Your task to perform on an android device: Search for 3d printer on AliExpress Image 0: 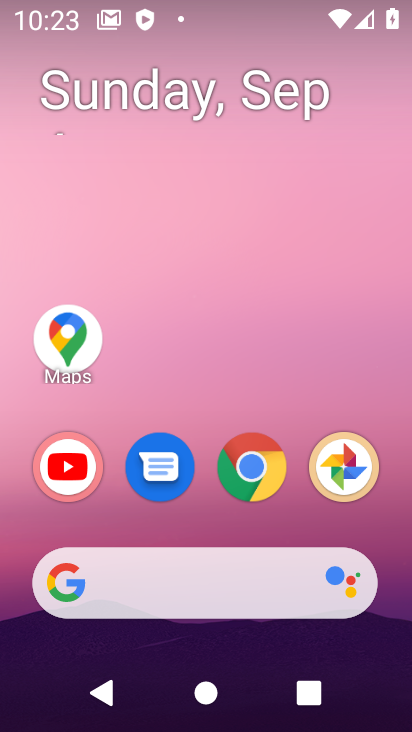
Step 0: click (260, 482)
Your task to perform on an android device: Search for 3d printer on AliExpress Image 1: 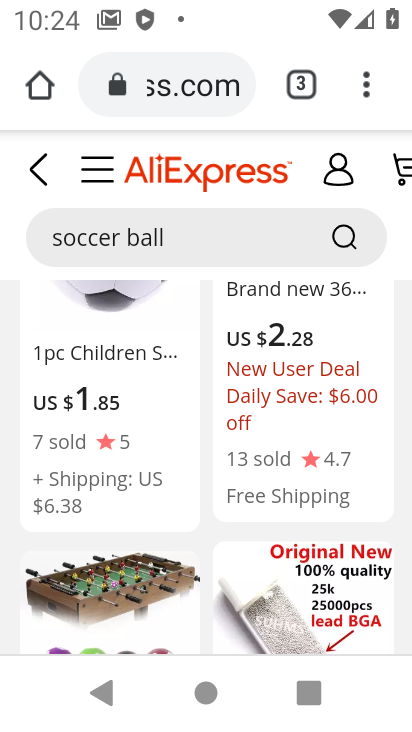
Step 1: click (174, 232)
Your task to perform on an android device: Search for 3d printer on AliExpress Image 2: 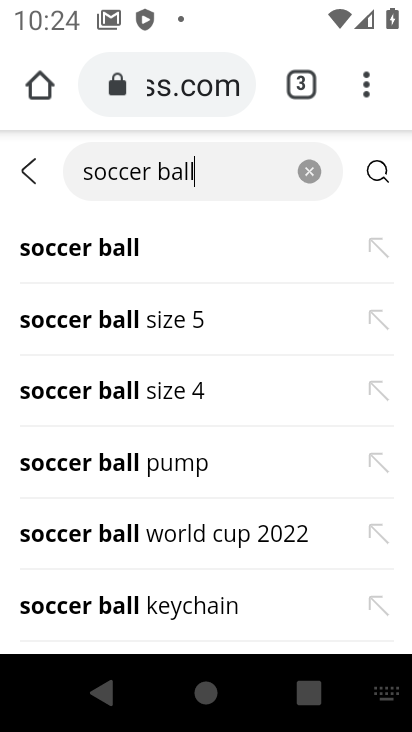
Step 2: click (312, 173)
Your task to perform on an android device: Search for 3d printer on AliExpress Image 3: 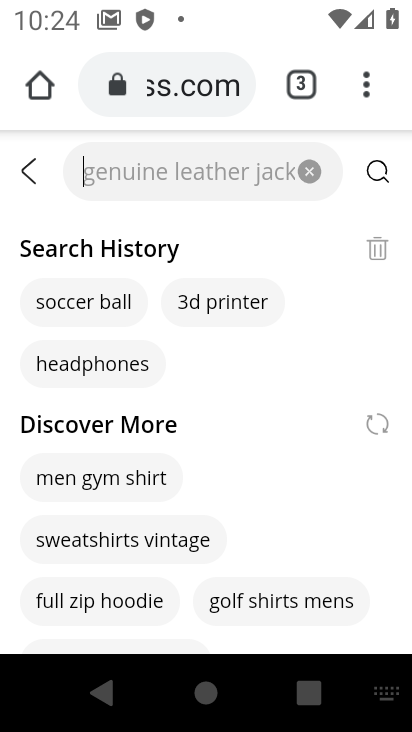
Step 3: type "3d printer"
Your task to perform on an android device: Search for 3d printer on AliExpress Image 4: 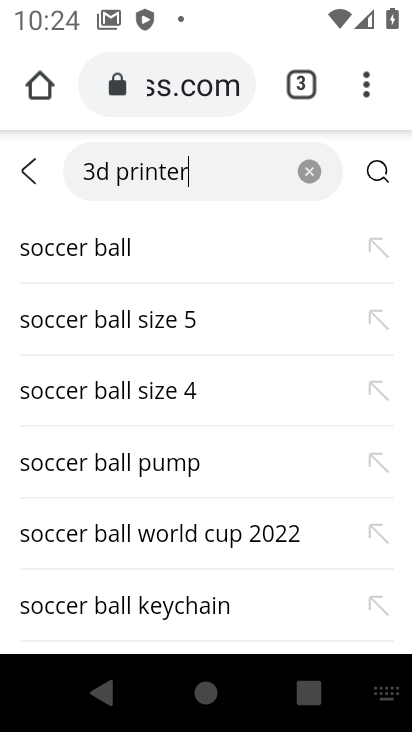
Step 4: type ""
Your task to perform on an android device: Search for 3d printer on AliExpress Image 5: 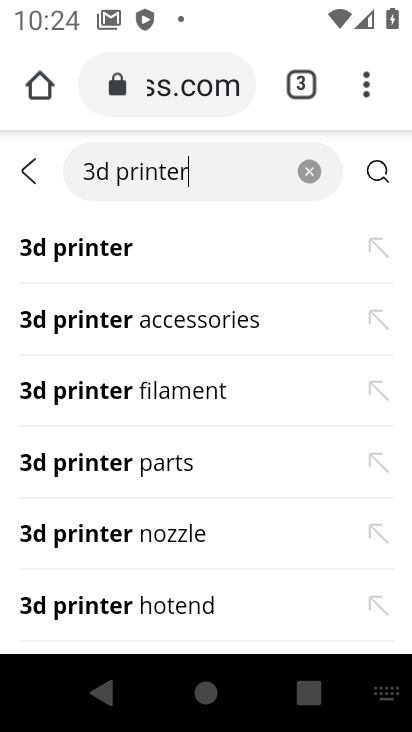
Step 5: click (65, 250)
Your task to perform on an android device: Search for 3d printer on AliExpress Image 6: 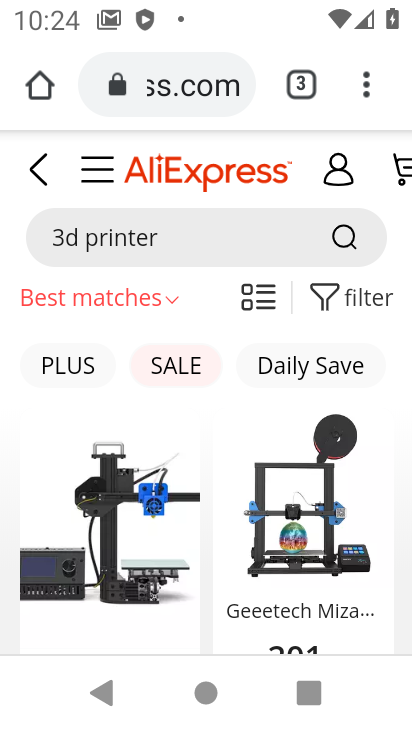
Step 6: drag from (184, 558) to (235, 285)
Your task to perform on an android device: Search for 3d printer on AliExpress Image 7: 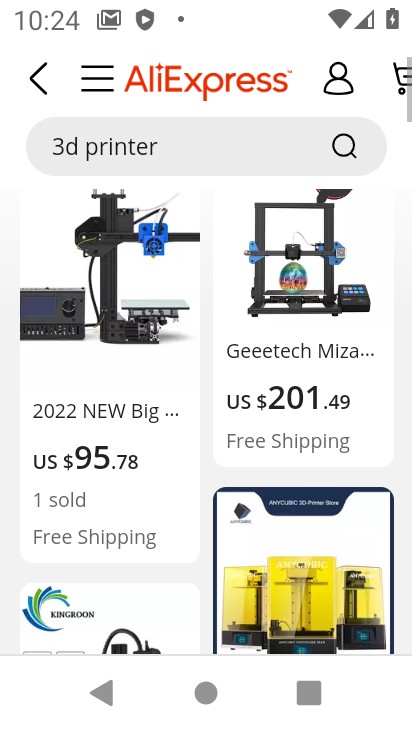
Step 7: drag from (286, 562) to (285, 203)
Your task to perform on an android device: Search for 3d printer on AliExpress Image 8: 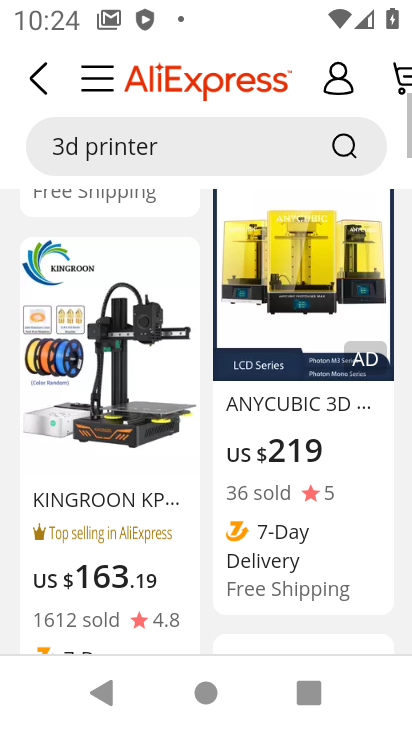
Step 8: drag from (250, 497) to (244, 232)
Your task to perform on an android device: Search for 3d printer on AliExpress Image 9: 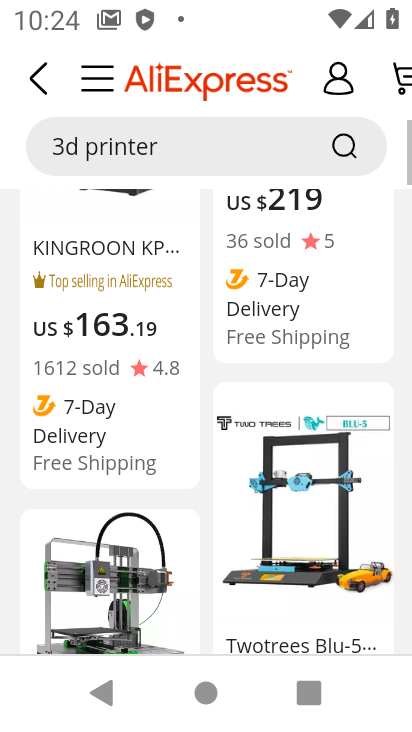
Step 9: drag from (250, 447) to (272, 262)
Your task to perform on an android device: Search for 3d printer on AliExpress Image 10: 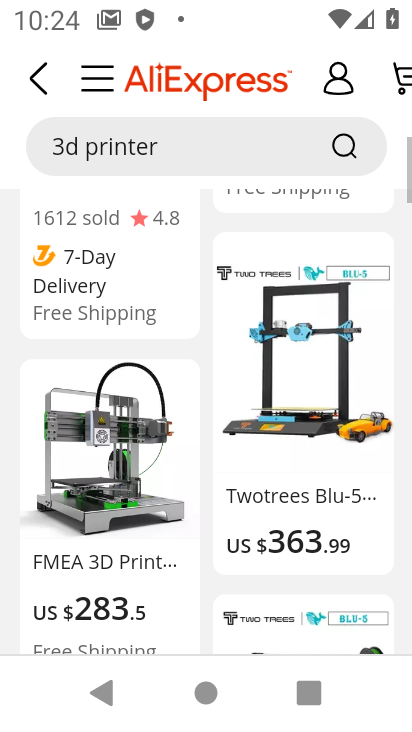
Step 10: drag from (319, 641) to (285, 306)
Your task to perform on an android device: Search for 3d printer on AliExpress Image 11: 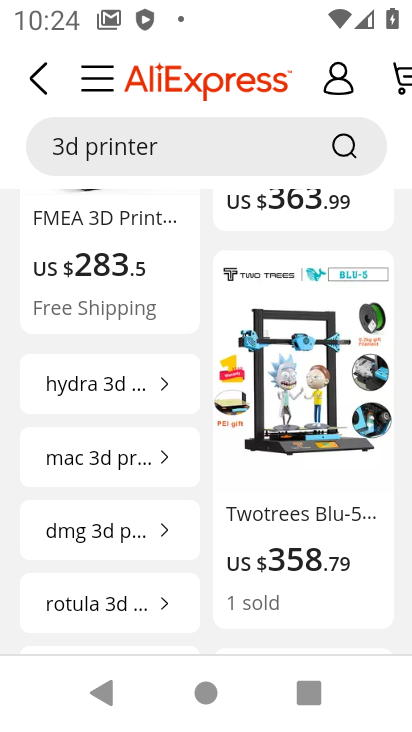
Step 11: drag from (226, 629) to (221, 258)
Your task to perform on an android device: Search for 3d printer on AliExpress Image 12: 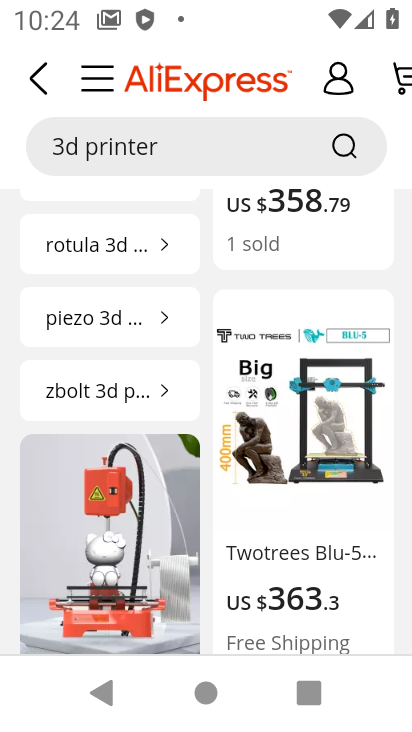
Step 12: drag from (126, 569) to (192, 164)
Your task to perform on an android device: Search for 3d printer on AliExpress Image 13: 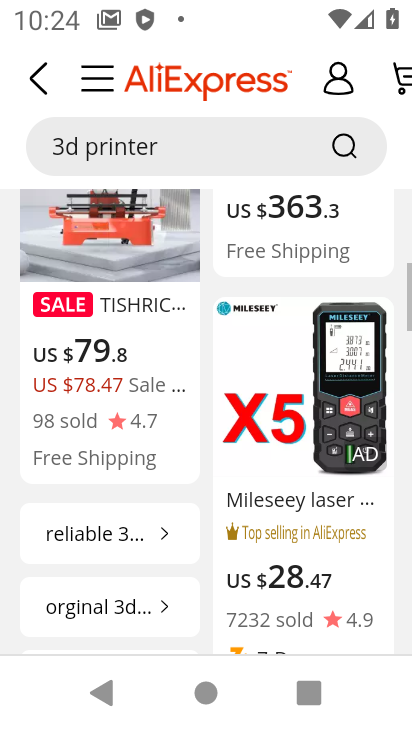
Step 13: drag from (155, 548) to (194, 195)
Your task to perform on an android device: Search for 3d printer on AliExpress Image 14: 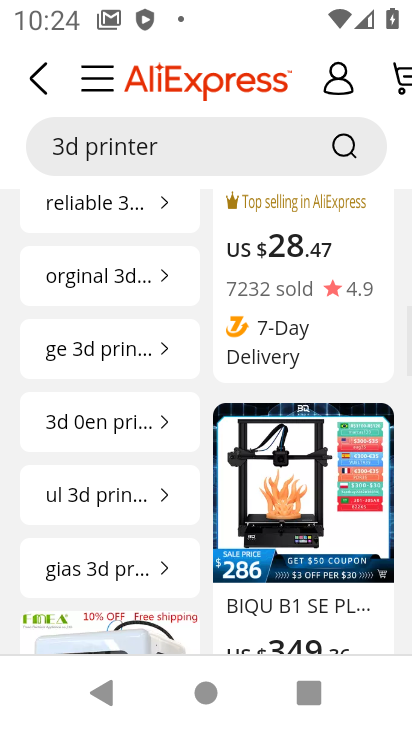
Step 14: drag from (227, 649) to (272, 298)
Your task to perform on an android device: Search for 3d printer on AliExpress Image 15: 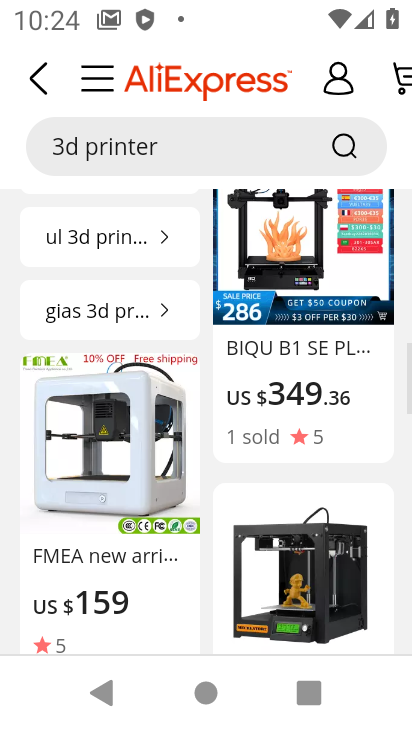
Step 15: drag from (277, 585) to (281, 240)
Your task to perform on an android device: Search for 3d printer on AliExpress Image 16: 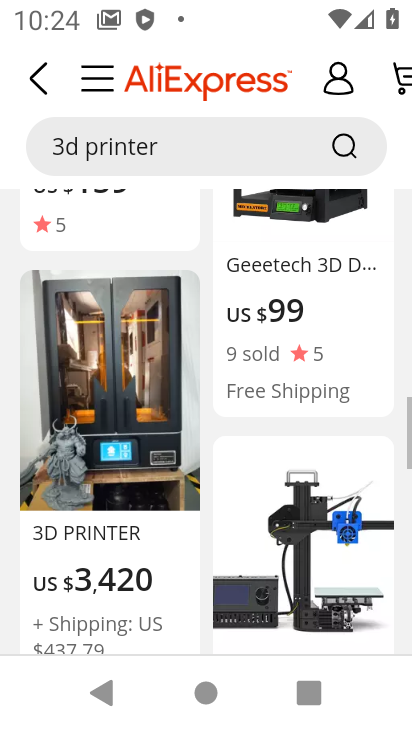
Step 16: drag from (307, 525) to (307, 213)
Your task to perform on an android device: Search for 3d printer on AliExpress Image 17: 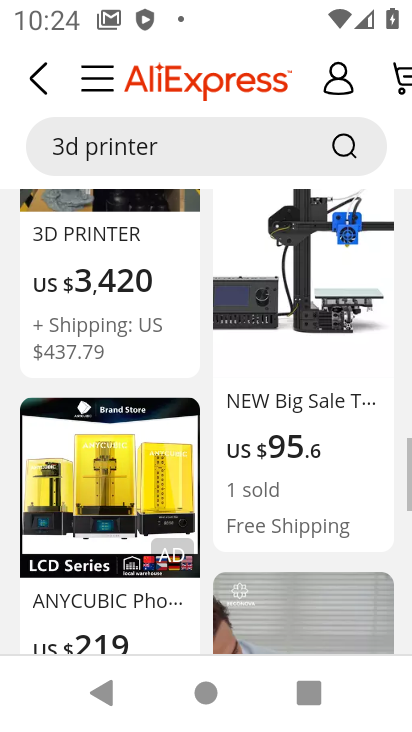
Step 17: drag from (265, 619) to (265, 284)
Your task to perform on an android device: Search for 3d printer on AliExpress Image 18: 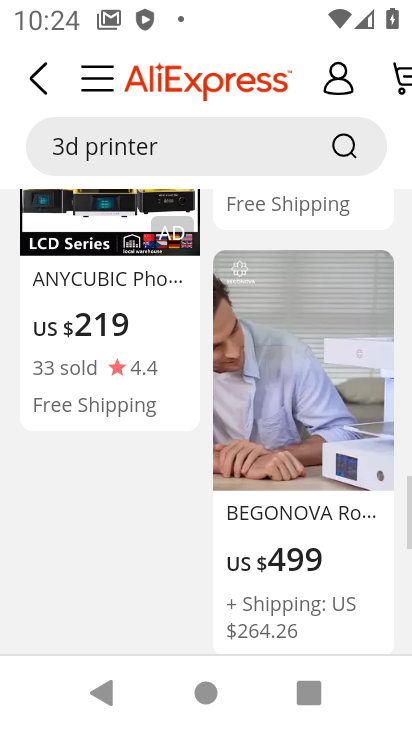
Step 18: drag from (212, 581) to (212, 317)
Your task to perform on an android device: Search for 3d printer on AliExpress Image 19: 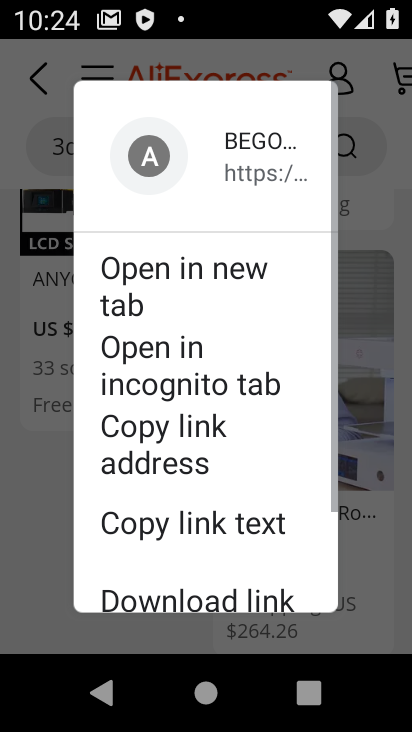
Step 19: drag from (400, 390) to (392, 230)
Your task to perform on an android device: Search for 3d printer on AliExpress Image 20: 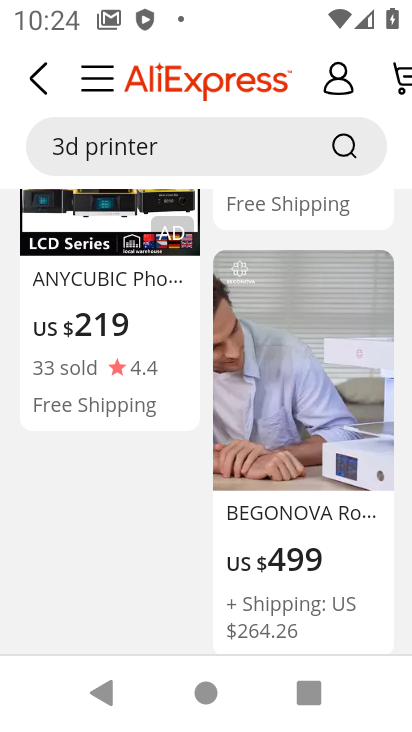
Step 20: drag from (294, 534) to (300, 125)
Your task to perform on an android device: Search for 3d printer on AliExpress Image 21: 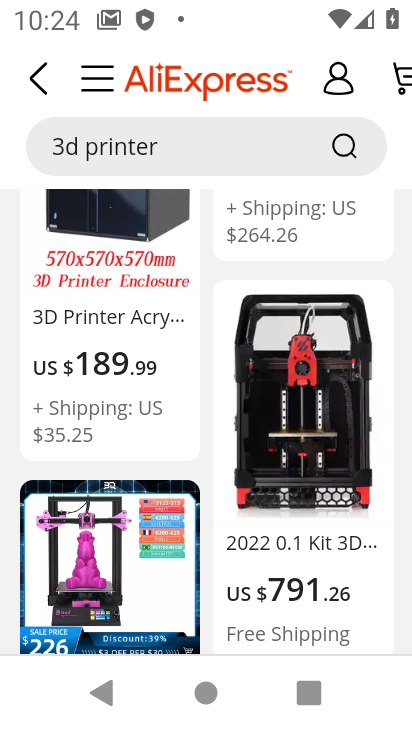
Step 21: drag from (282, 477) to (282, 152)
Your task to perform on an android device: Search for 3d printer on AliExpress Image 22: 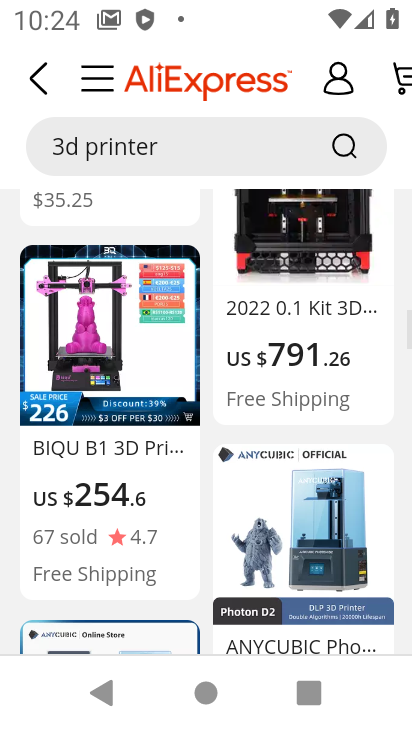
Step 22: drag from (303, 562) to (297, 217)
Your task to perform on an android device: Search for 3d printer on AliExpress Image 23: 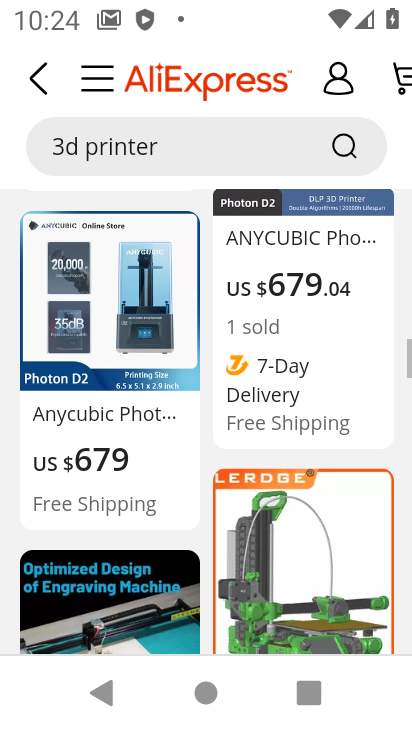
Step 23: drag from (324, 516) to (297, 207)
Your task to perform on an android device: Search for 3d printer on AliExpress Image 24: 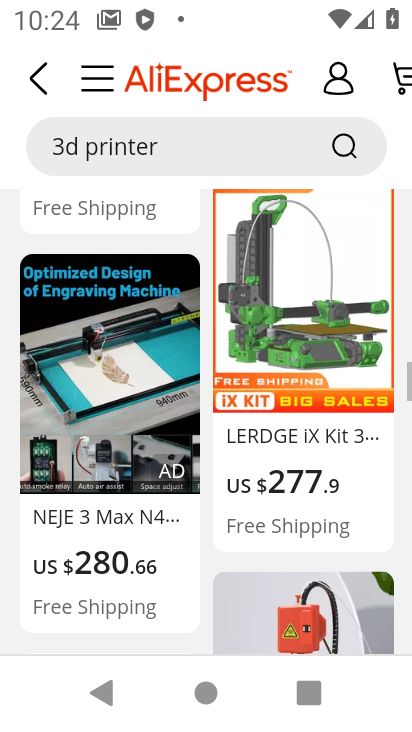
Step 24: drag from (332, 442) to (334, 276)
Your task to perform on an android device: Search for 3d printer on AliExpress Image 25: 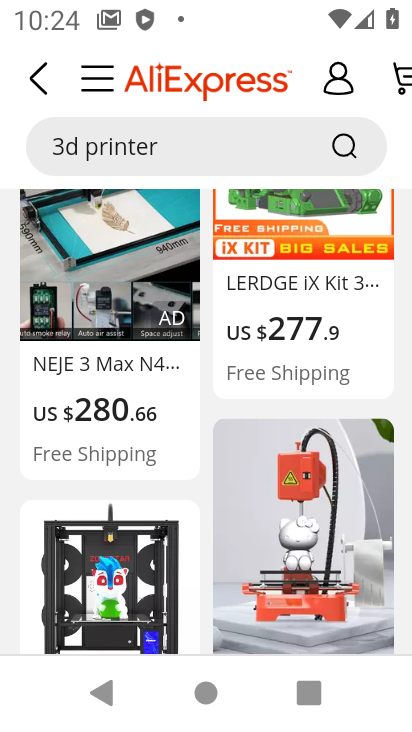
Step 25: drag from (312, 594) to (289, 257)
Your task to perform on an android device: Search for 3d printer on AliExpress Image 26: 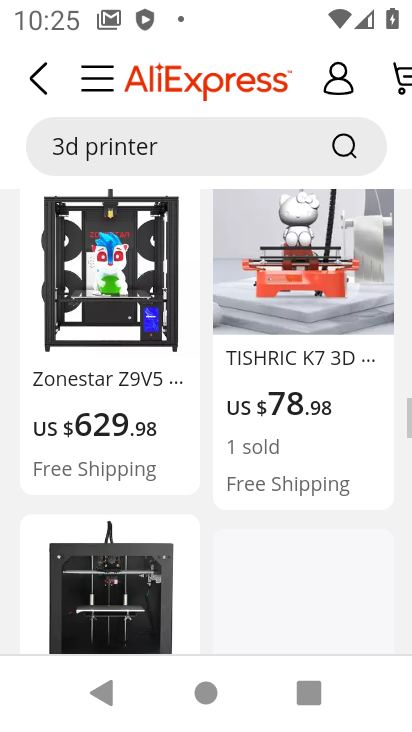
Step 26: drag from (291, 528) to (281, 303)
Your task to perform on an android device: Search for 3d printer on AliExpress Image 27: 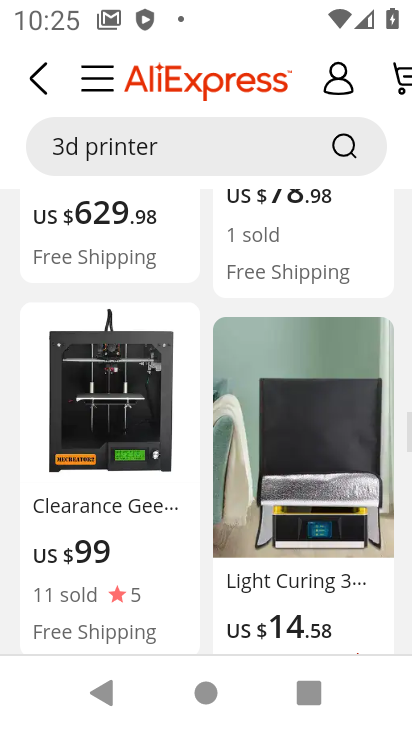
Step 27: drag from (316, 614) to (303, 372)
Your task to perform on an android device: Search for 3d printer on AliExpress Image 28: 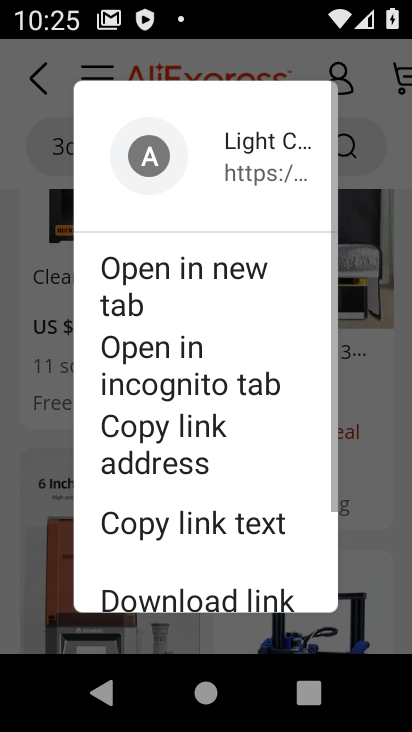
Step 28: drag from (384, 517) to (360, 306)
Your task to perform on an android device: Search for 3d printer on AliExpress Image 29: 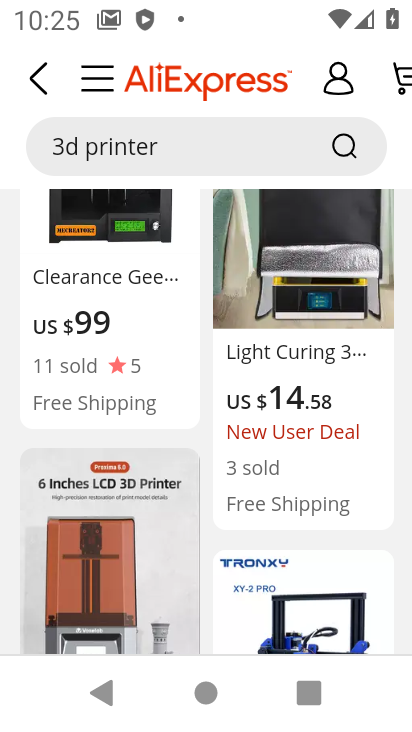
Step 29: drag from (361, 532) to (361, 318)
Your task to perform on an android device: Search for 3d printer on AliExpress Image 30: 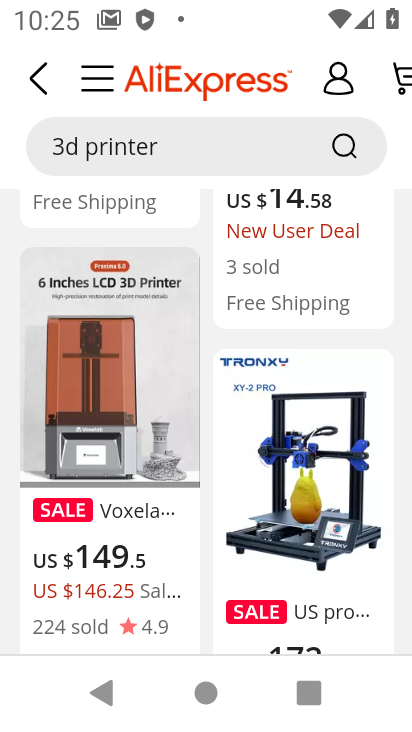
Step 30: drag from (366, 337) to (389, 148)
Your task to perform on an android device: Search for 3d printer on AliExpress Image 31: 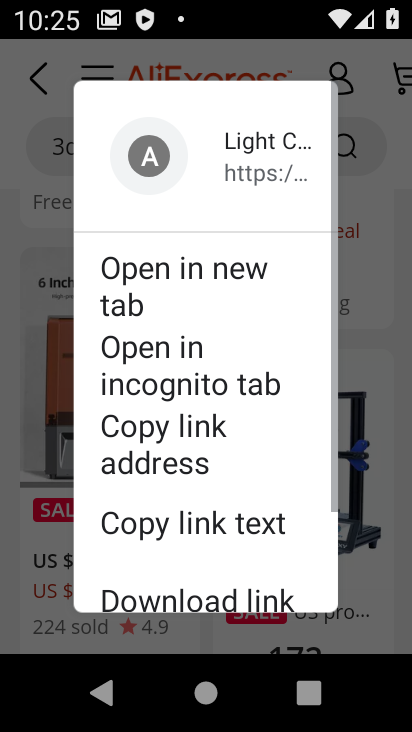
Step 31: drag from (386, 272) to (386, 219)
Your task to perform on an android device: Search for 3d printer on AliExpress Image 32: 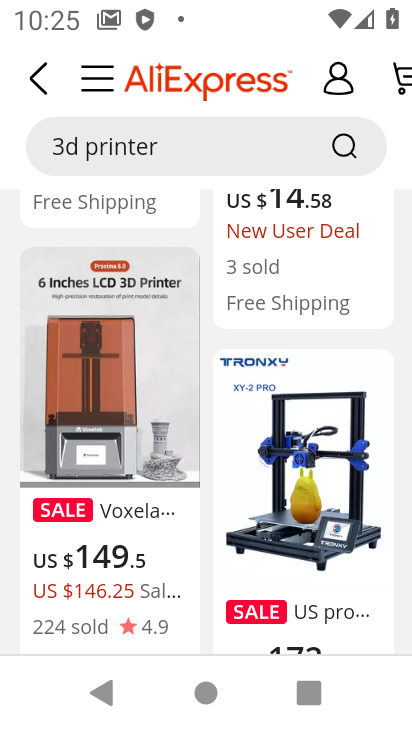
Step 32: drag from (371, 348) to (341, 193)
Your task to perform on an android device: Search for 3d printer on AliExpress Image 33: 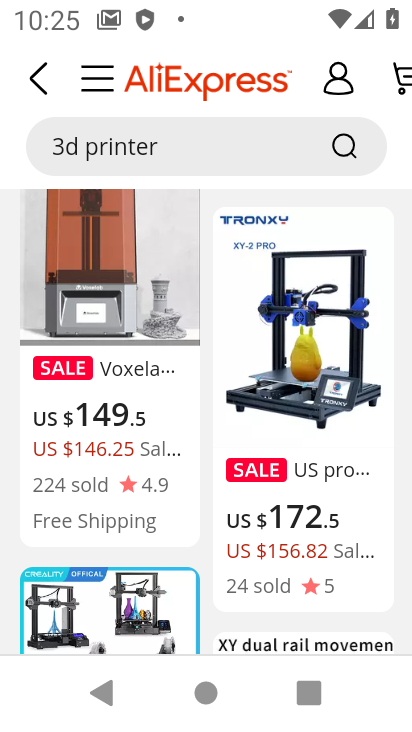
Step 33: drag from (351, 418) to (348, 250)
Your task to perform on an android device: Search for 3d printer on AliExpress Image 34: 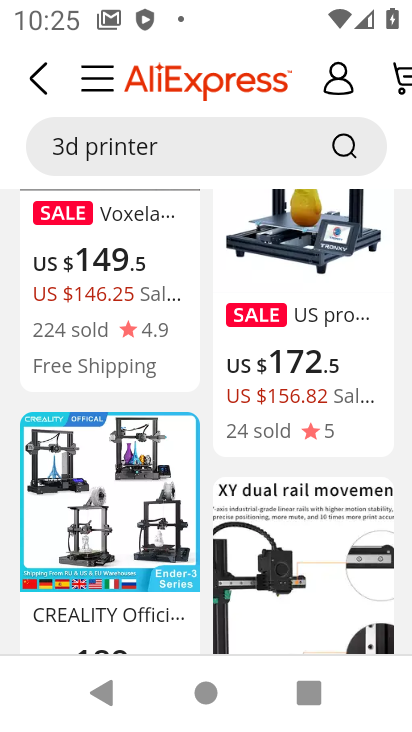
Step 34: press home button
Your task to perform on an android device: Search for 3d printer on AliExpress Image 35: 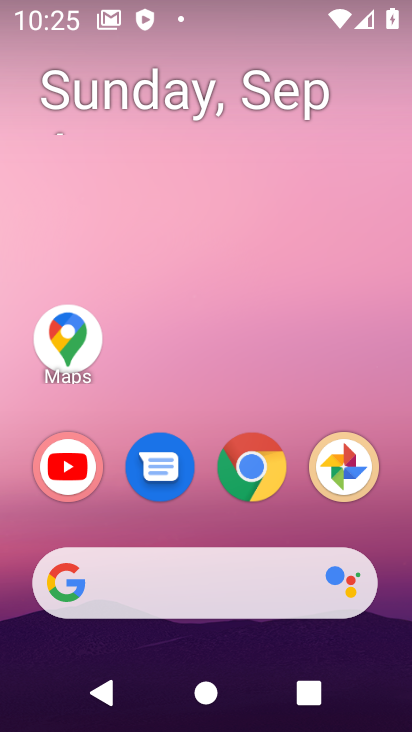
Step 35: click (228, 461)
Your task to perform on an android device: Search for 3d printer on AliExpress Image 36: 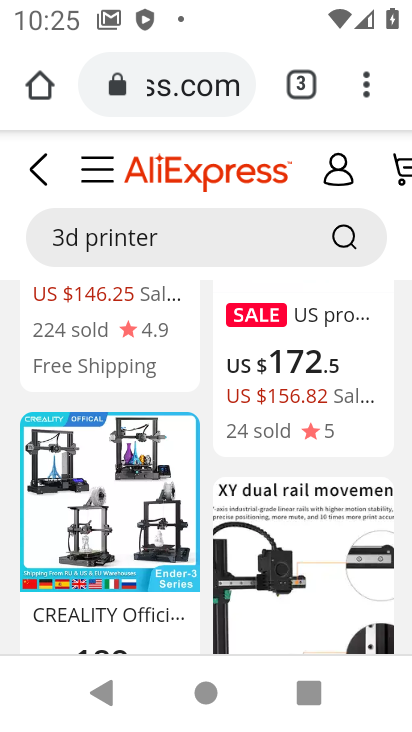
Step 36: task complete